Your task to perform on an android device: turn off translation in the chrome app Image 0: 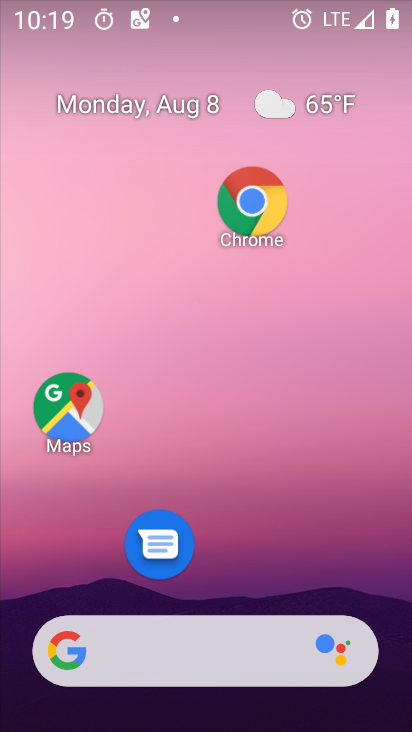
Step 0: drag from (214, 587) to (214, 126)
Your task to perform on an android device: turn off translation in the chrome app Image 1: 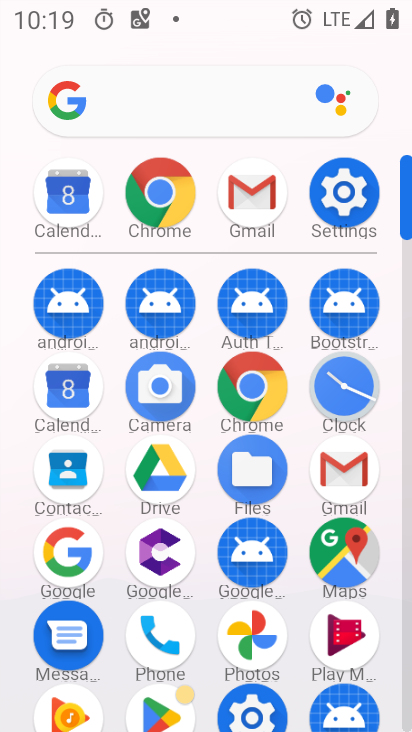
Step 1: click (252, 377)
Your task to perform on an android device: turn off translation in the chrome app Image 2: 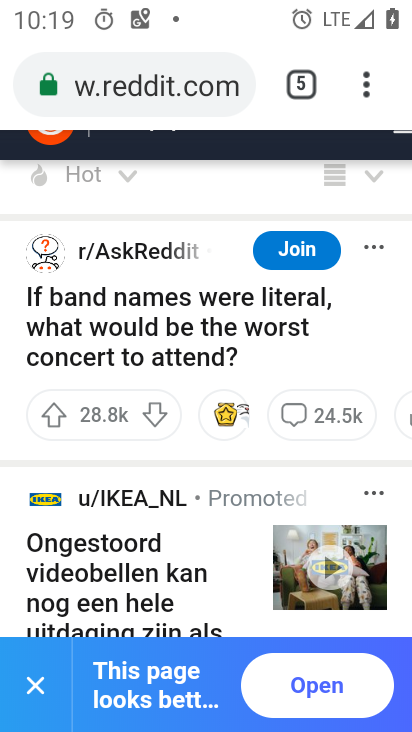
Step 2: click (366, 82)
Your task to perform on an android device: turn off translation in the chrome app Image 3: 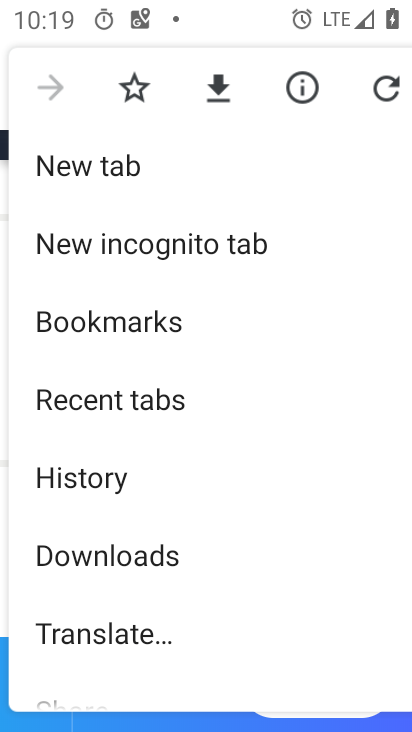
Step 3: drag from (189, 640) to (204, 129)
Your task to perform on an android device: turn off translation in the chrome app Image 4: 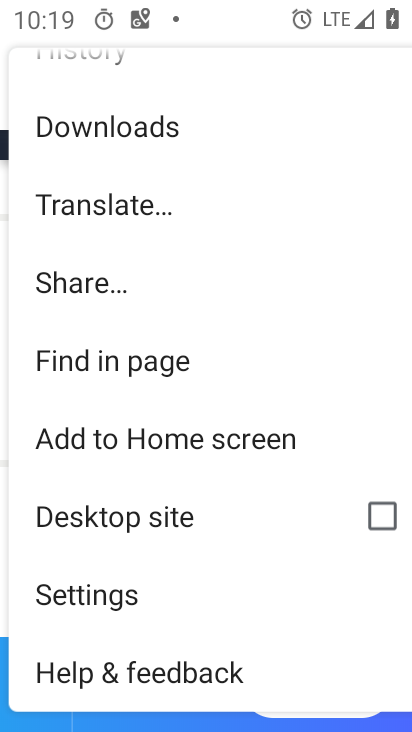
Step 4: click (148, 595)
Your task to perform on an android device: turn off translation in the chrome app Image 5: 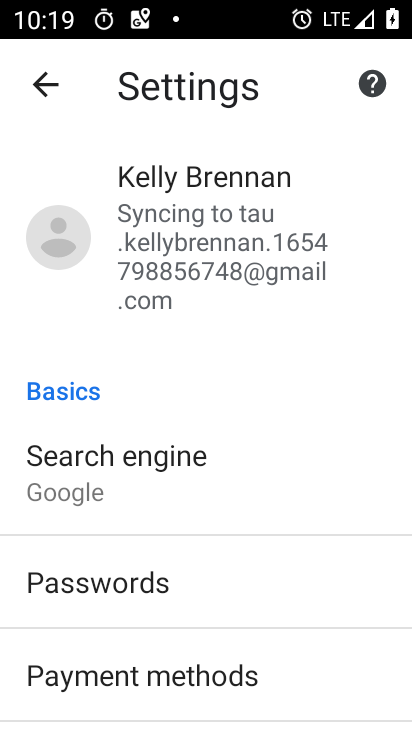
Step 5: drag from (226, 644) to (229, 181)
Your task to perform on an android device: turn off translation in the chrome app Image 6: 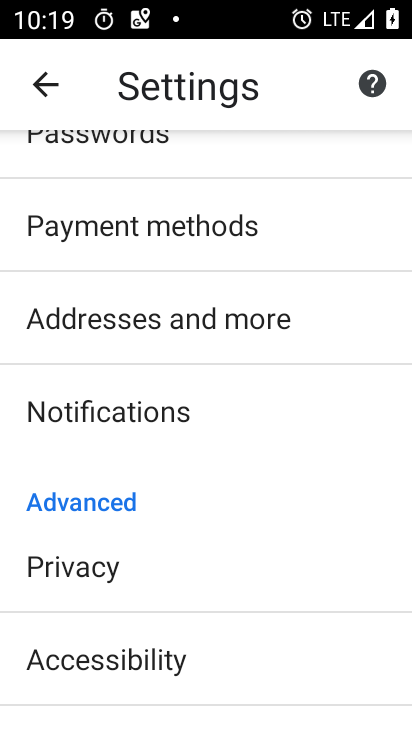
Step 6: drag from (211, 650) to (203, 199)
Your task to perform on an android device: turn off translation in the chrome app Image 7: 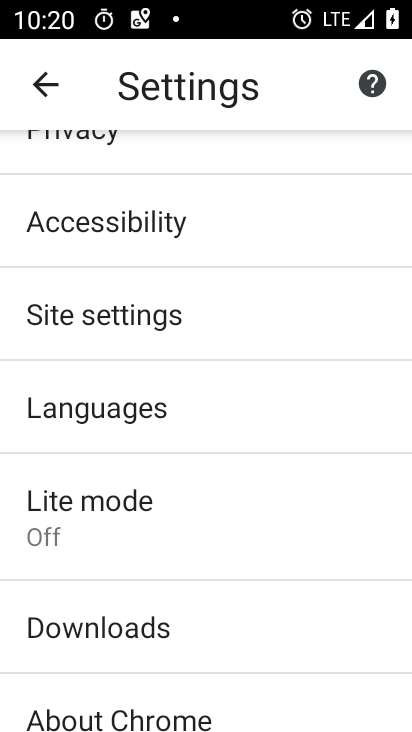
Step 7: click (173, 414)
Your task to perform on an android device: turn off translation in the chrome app Image 8: 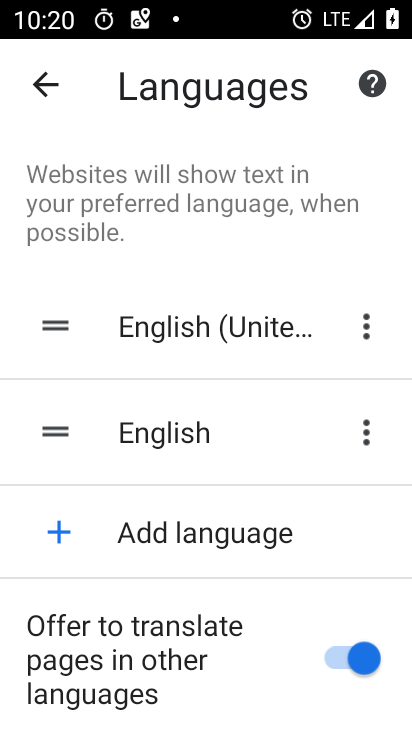
Step 8: click (345, 659)
Your task to perform on an android device: turn off translation in the chrome app Image 9: 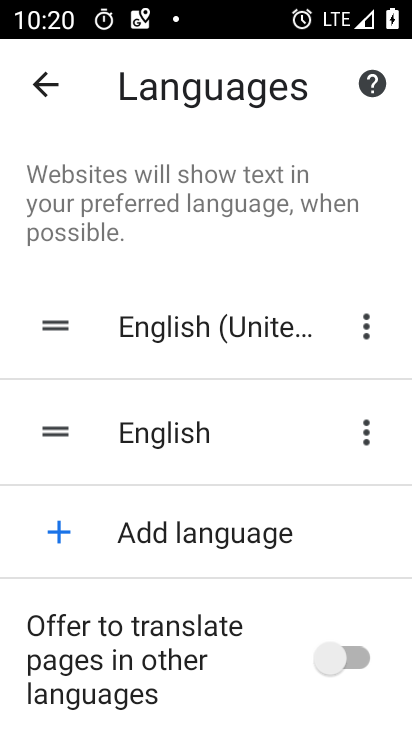
Step 9: task complete